Your task to perform on an android device: open a new tab in the chrome app Image 0: 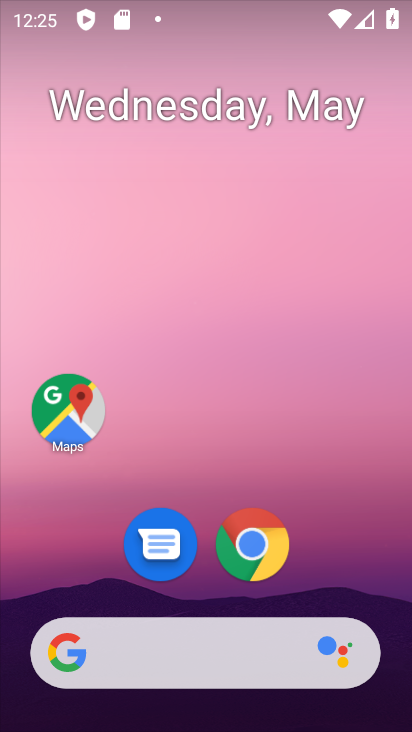
Step 0: click (261, 545)
Your task to perform on an android device: open a new tab in the chrome app Image 1: 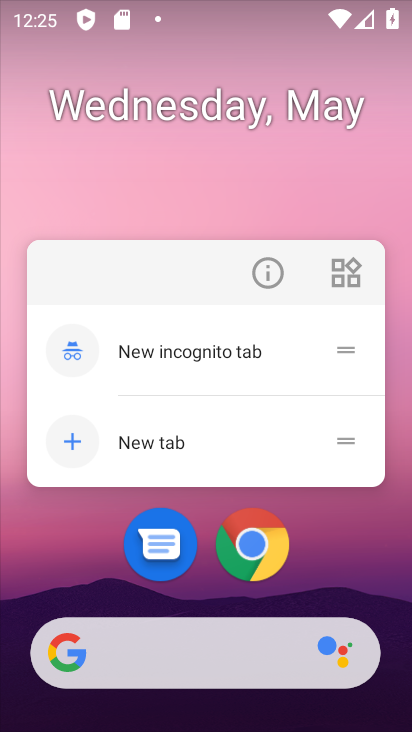
Step 1: click (261, 543)
Your task to perform on an android device: open a new tab in the chrome app Image 2: 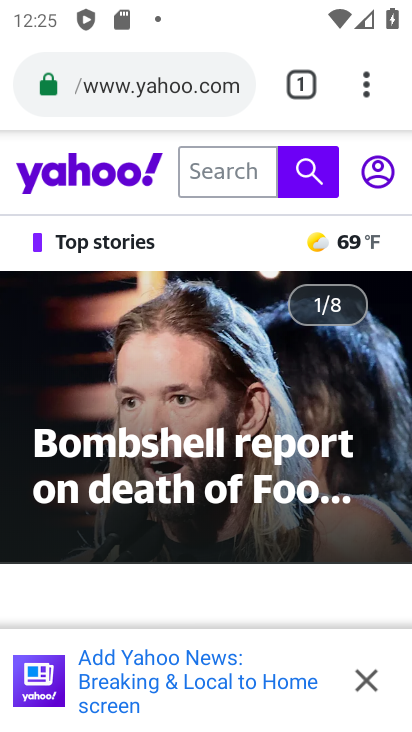
Step 2: task complete